Your task to perform on an android device: Is it going to rain tomorrow? Image 0: 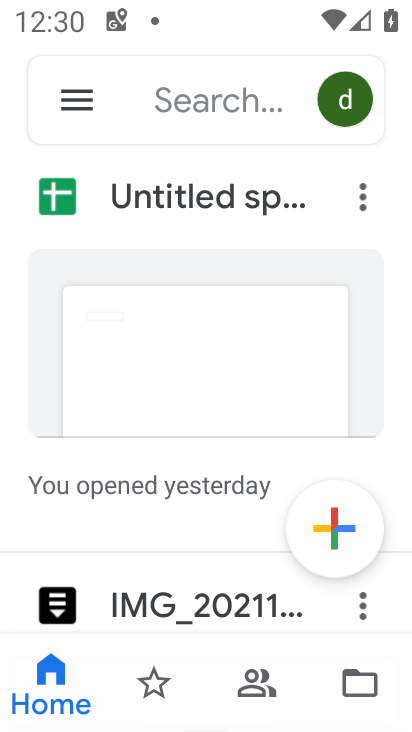
Step 0: press back button
Your task to perform on an android device: Is it going to rain tomorrow? Image 1: 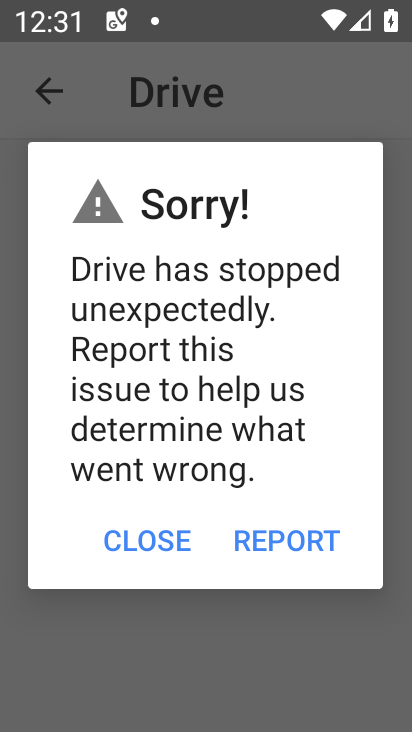
Step 1: press home button
Your task to perform on an android device: Is it going to rain tomorrow? Image 2: 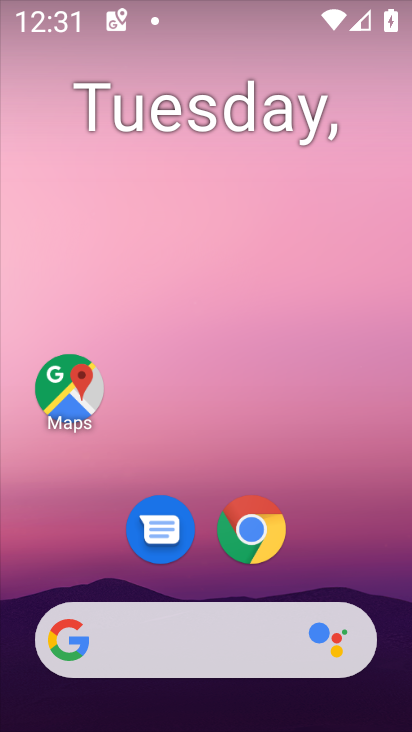
Step 2: click (174, 642)
Your task to perform on an android device: Is it going to rain tomorrow? Image 3: 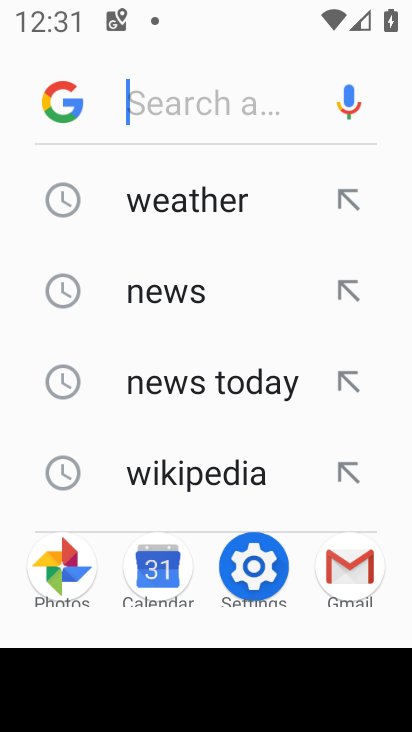
Step 3: click (154, 202)
Your task to perform on an android device: Is it going to rain tomorrow? Image 4: 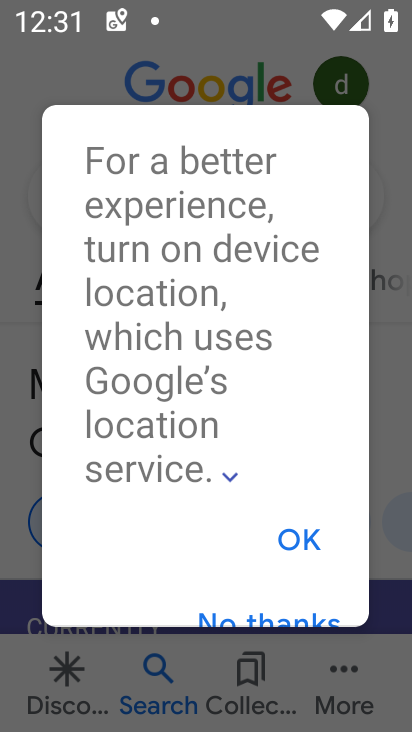
Step 4: click (297, 535)
Your task to perform on an android device: Is it going to rain tomorrow? Image 5: 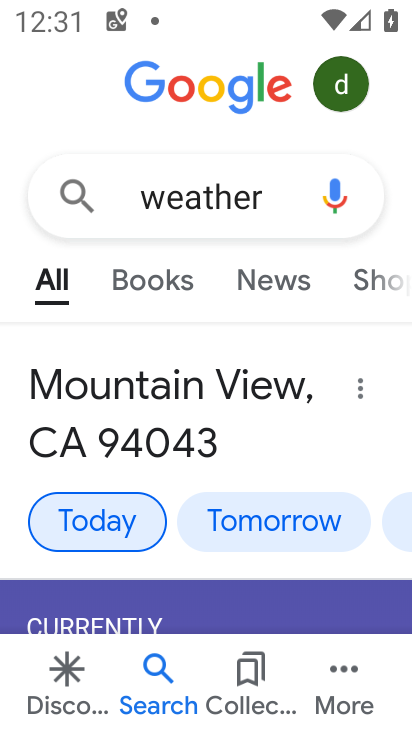
Step 5: click (227, 520)
Your task to perform on an android device: Is it going to rain tomorrow? Image 6: 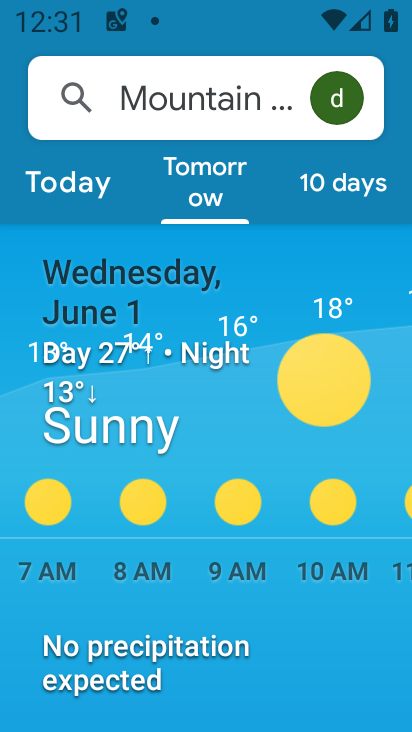
Step 6: task complete